Your task to perform on an android device: turn off notifications settings in the gmail app Image 0: 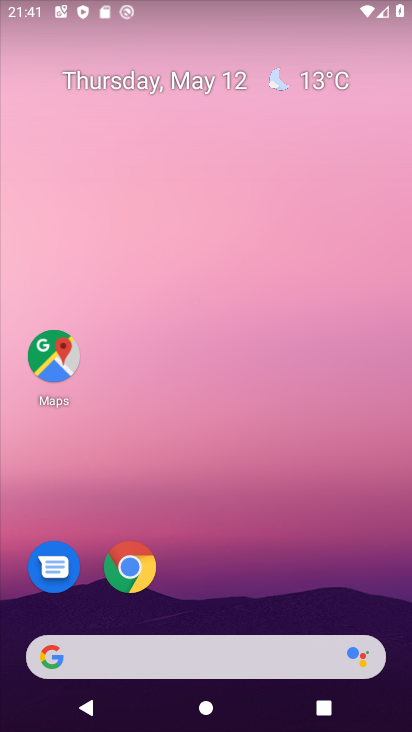
Step 0: drag from (219, 614) to (222, 48)
Your task to perform on an android device: turn off notifications settings in the gmail app Image 1: 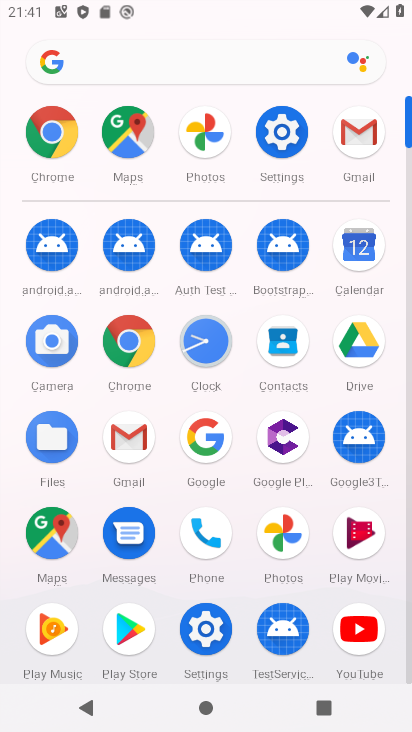
Step 1: click (359, 127)
Your task to perform on an android device: turn off notifications settings in the gmail app Image 2: 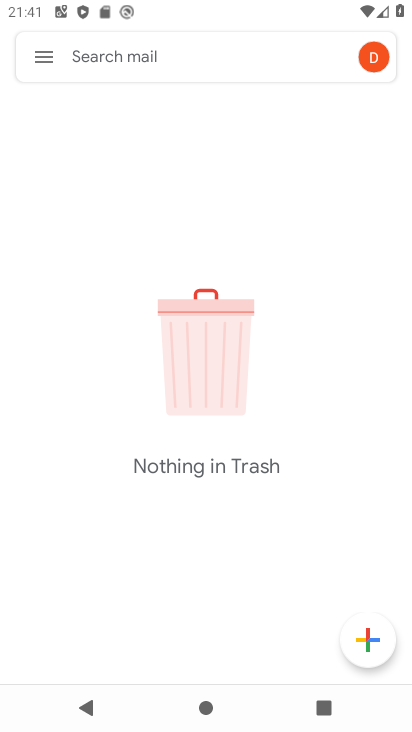
Step 2: click (40, 53)
Your task to perform on an android device: turn off notifications settings in the gmail app Image 3: 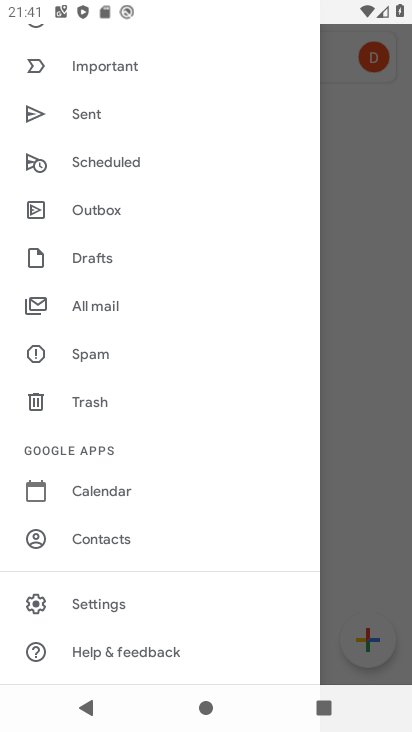
Step 3: click (134, 599)
Your task to perform on an android device: turn off notifications settings in the gmail app Image 4: 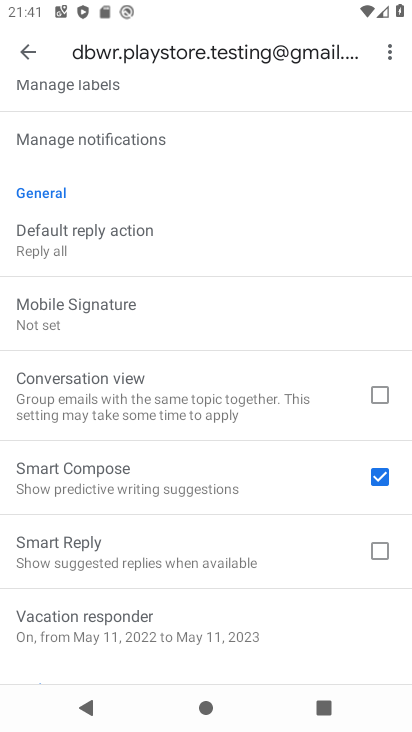
Step 4: drag from (194, 206) to (158, 682)
Your task to perform on an android device: turn off notifications settings in the gmail app Image 5: 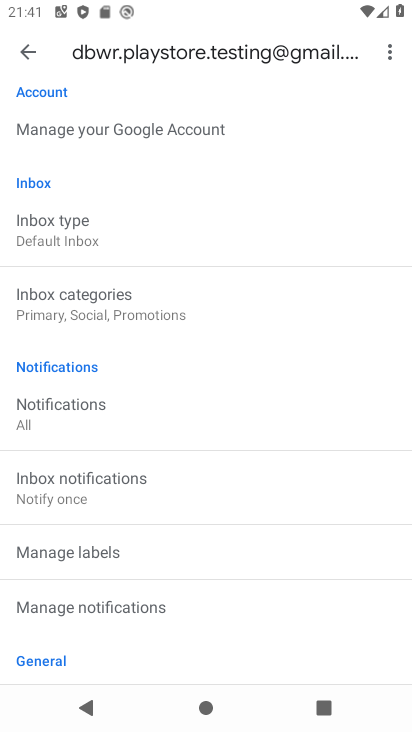
Step 5: click (27, 58)
Your task to perform on an android device: turn off notifications settings in the gmail app Image 6: 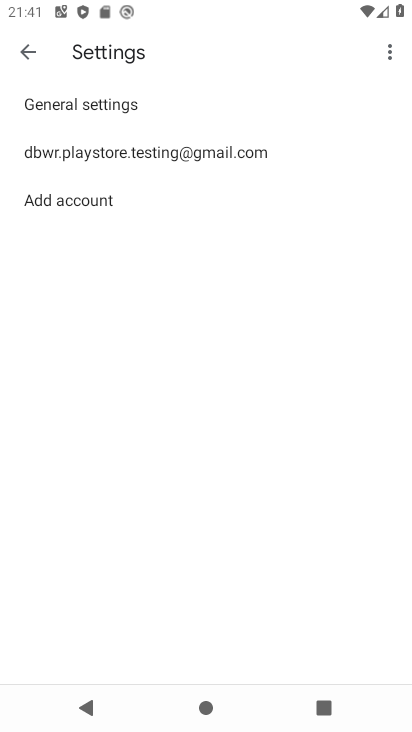
Step 6: click (111, 105)
Your task to perform on an android device: turn off notifications settings in the gmail app Image 7: 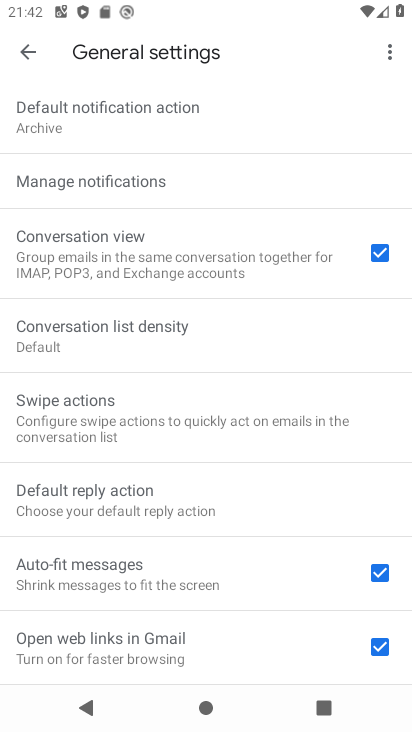
Step 7: click (189, 175)
Your task to perform on an android device: turn off notifications settings in the gmail app Image 8: 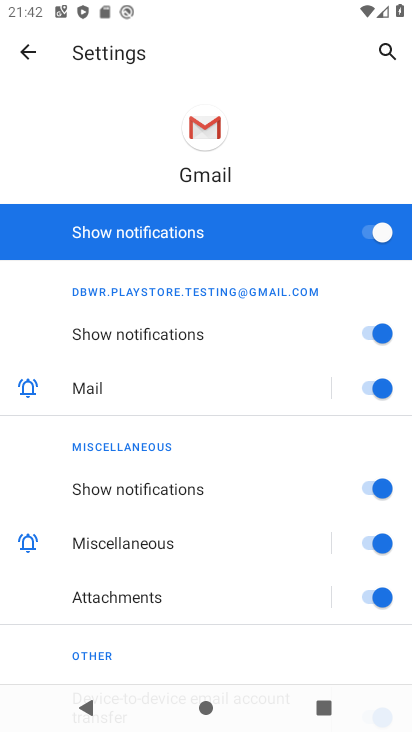
Step 8: click (370, 232)
Your task to perform on an android device: turn off notifications settings in the gmail app Image 9: 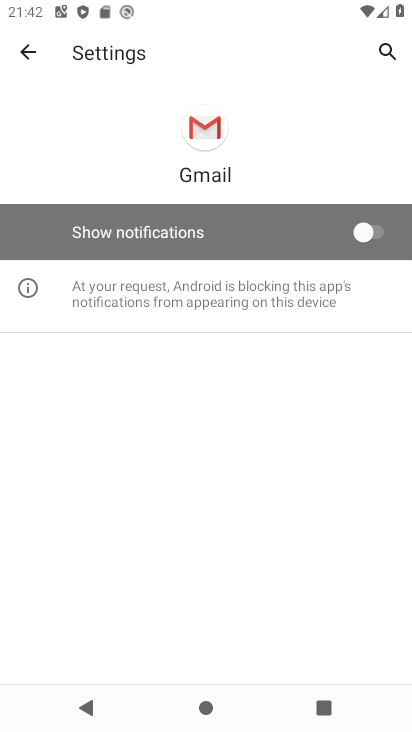
Step 9: task complete